Your task to perform on an android device: toggle wifi Image 0: 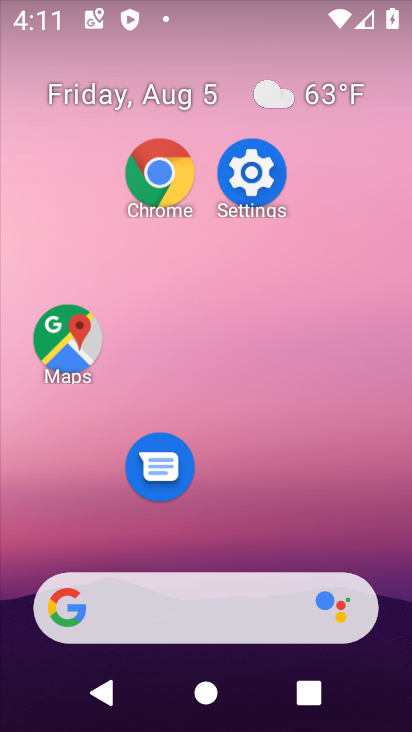
Step 0: press home button
Your task to perform on an android device: toggle wifi Image 1: 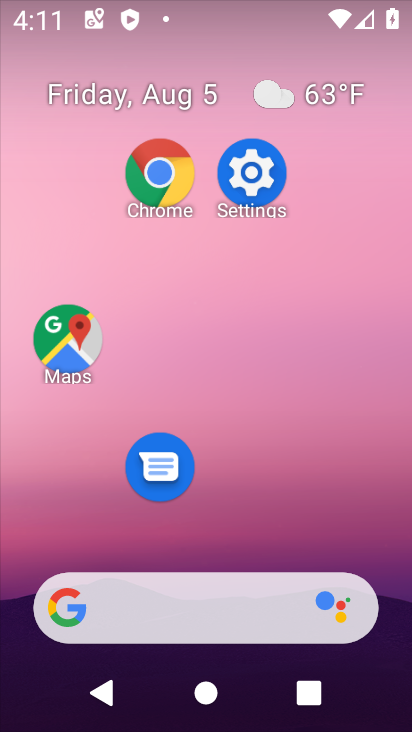
Step 1: drag from (281, 4) to (262, 439)
Your task to perform on an android device: toggle wifi Image 2: 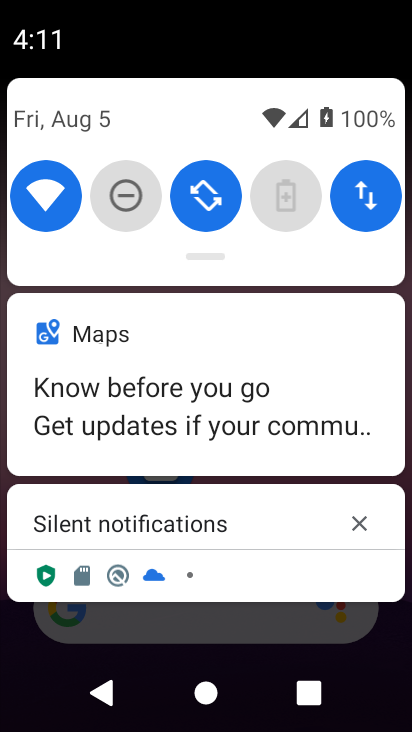
Step 2: click (40, 188)
Your task to perform on an android device: toggle wifi Image 3: 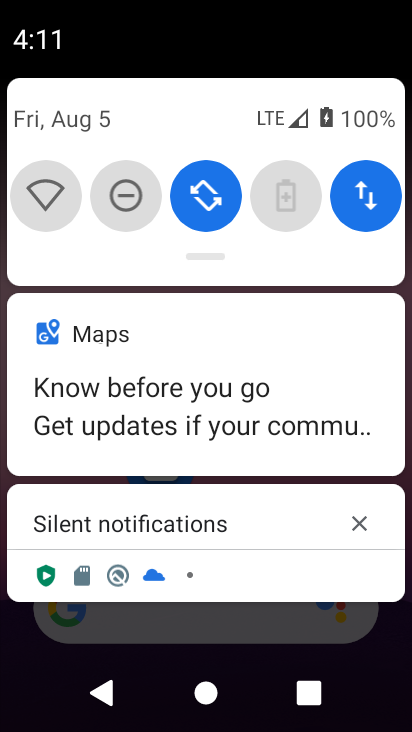
Step 3: task complete